Your task to perform on an android device: Turn off the flashlight Image 0: 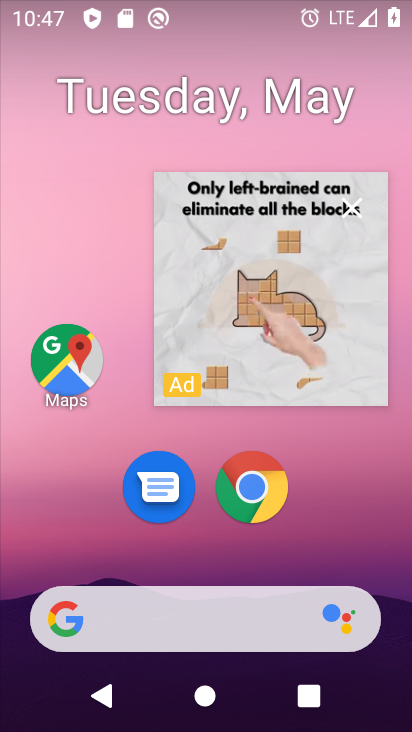
Step 0: click (349, 211)
Your task to perform on an android device: Turn off the flashlight Image 1: 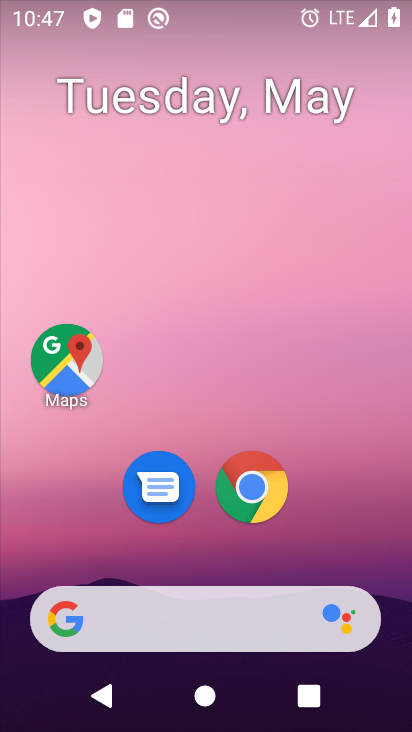
Step 1: drag from (185, 550) to (285, 73)
Your task to perform on an android device: Turn off the flashlight Image 2: 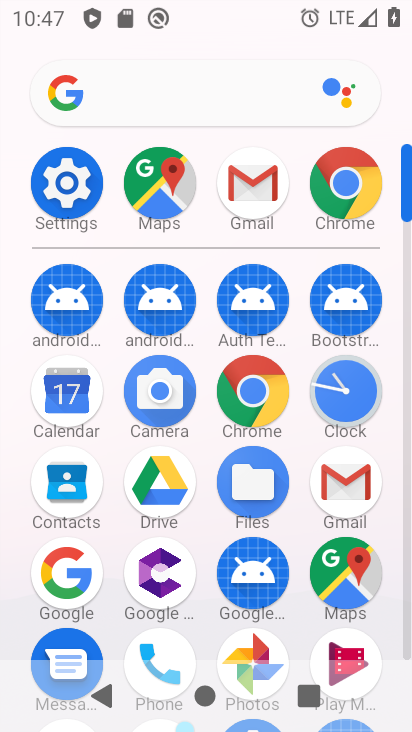
Step 2: click (69, 195)
Your task to perform on an android device: Turn off the flashlight Image 3: 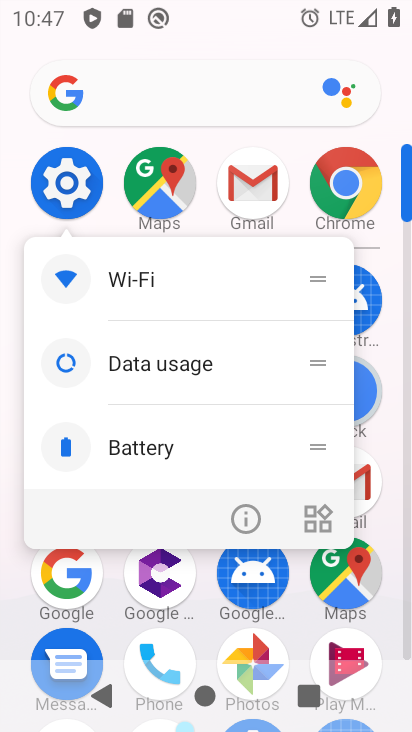
Step 3: click (253, 518)
Your task to perform on an android device: Turn off the flashlight Image 4: 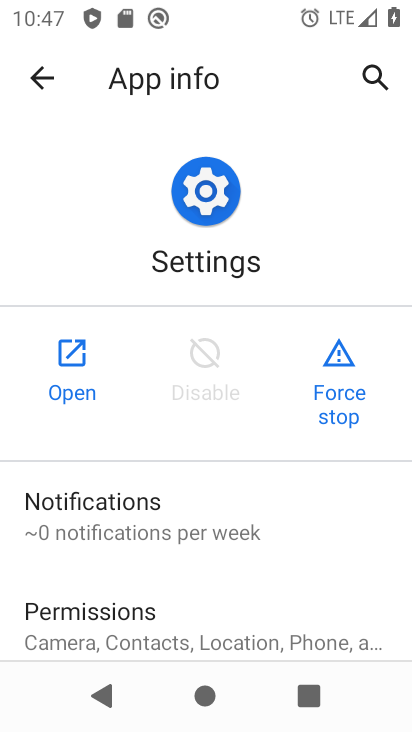
Step 4: click (99, 361)
Your task to perform on an android device: Turn off the flashlight Image 5: 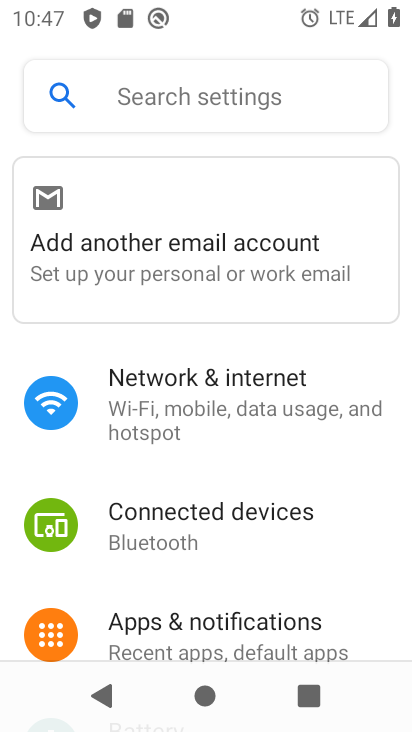
Step 5: click (88, 79)
Your task to perform on an android device: Turn off the flashlight Image 6: 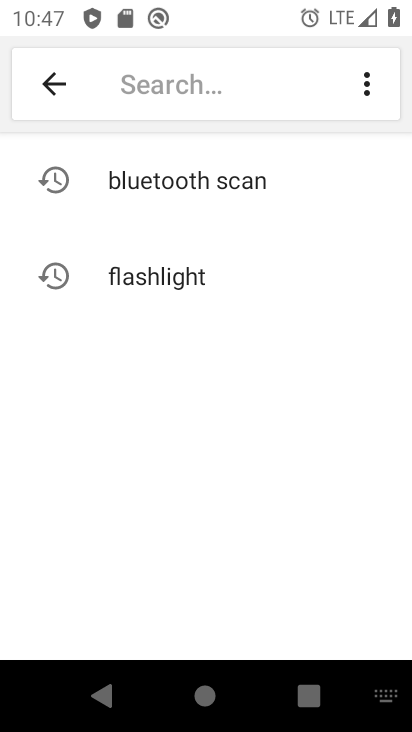
Step 6: click (167, 282)
Your task to perform on an android device: Turn off the flashlight Image 7: 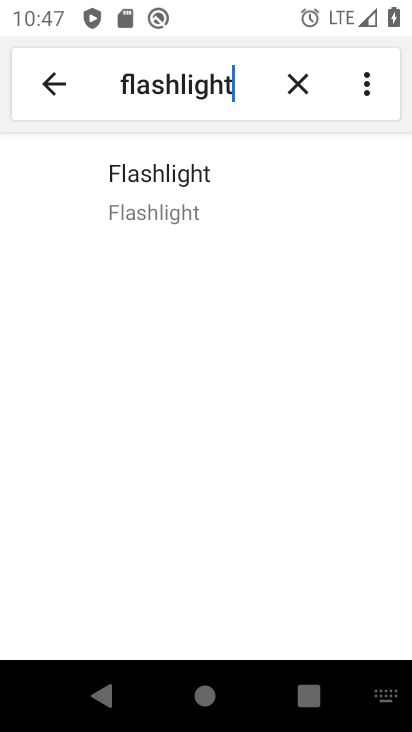
Step 7: task complete